Your task to perform on an android device: make emails show in primary in the gmail app Image 0: 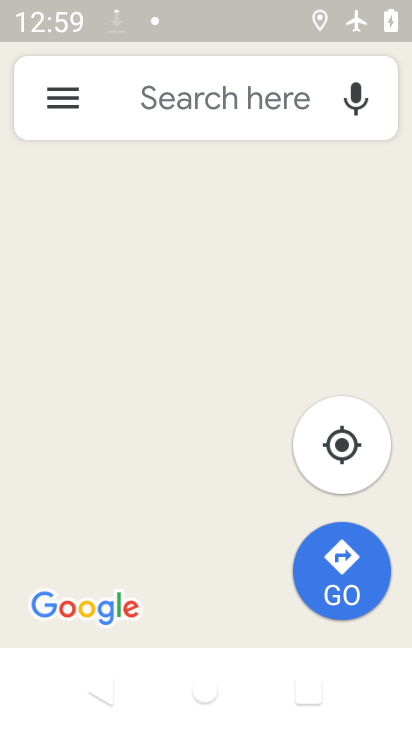
Step 0: press home button
Your task to perform on an android device: make emails show in primary in the gmail app Image 1: 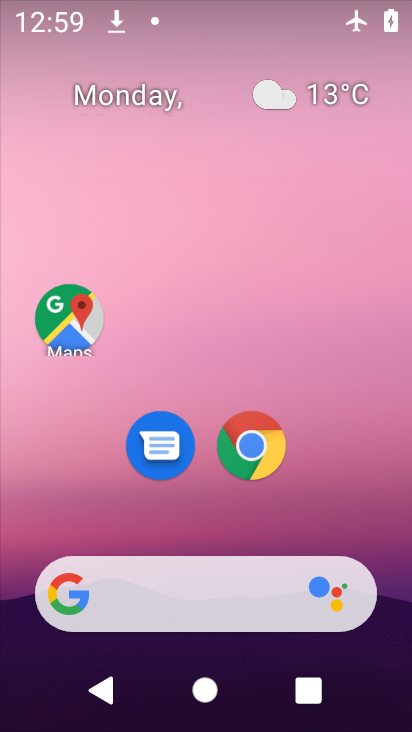
Step 1: drag from (296, 538) to (181, 116)
Your task to perform on an android device: make emails show in primary in the gmail app Image 2: 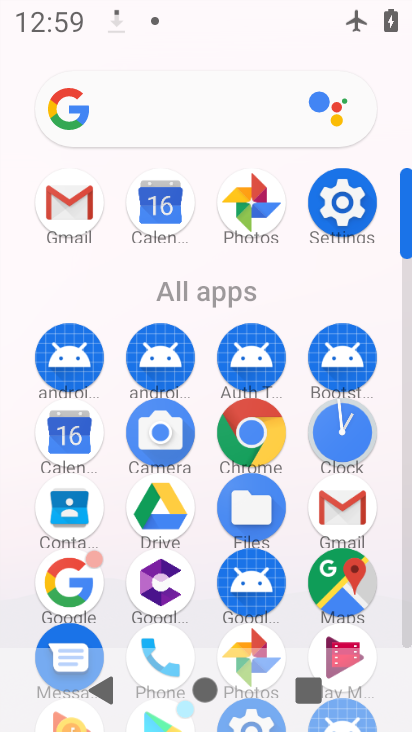
Step 2: click (340, 502)
Your task to perform on an android device: make emails show in primary in the gmail app Image 3: 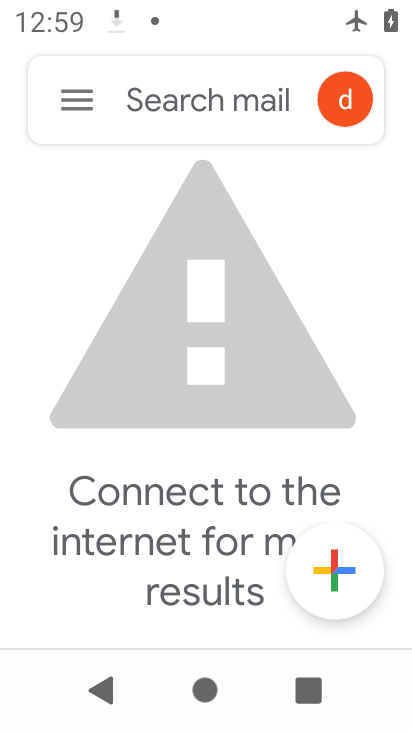
Step 3: click (70, 105)
Your task to perform on an android device: make emails show in primary in the gmail app Image 4: 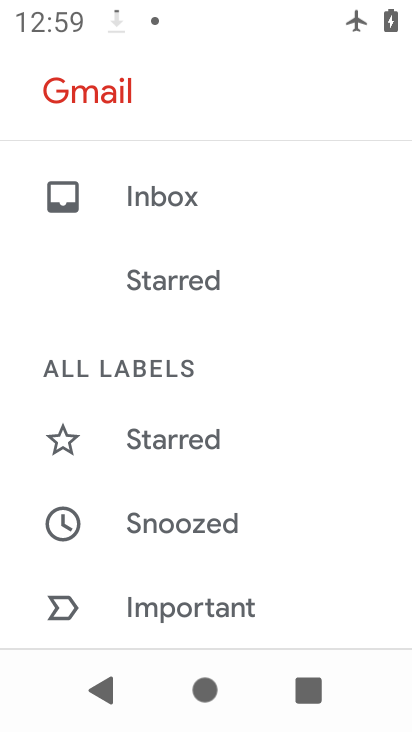
Step 4: drag from (141, 600) to (170, 356)
Your task to perform on an android device: make emails show in primary in the gmail app Image 5: 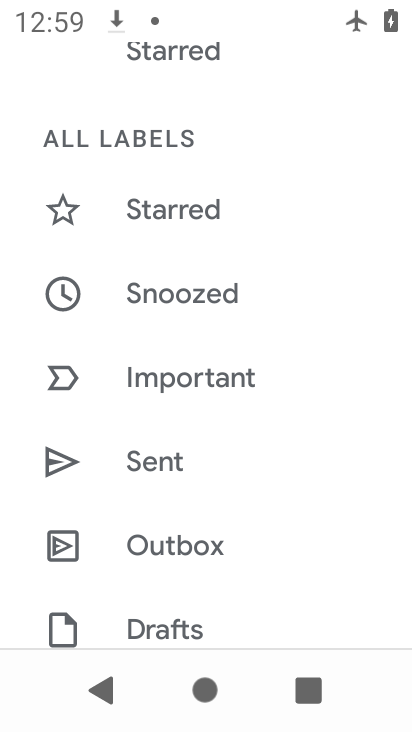
Step 5: drag from (180, 668) to (203, 439)
Your task to perform on an android device: make emails show in primary in the gmail app Image 6: 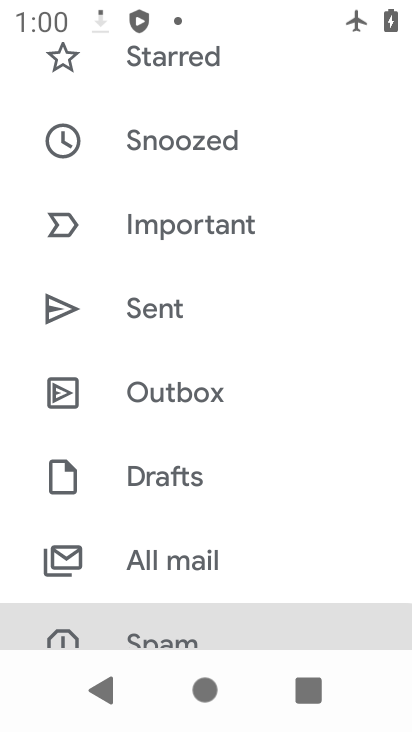
Step 6: drag from (157, 564) to (164, 294)
Your task to perform on an android device: make emails show in primary in the gmail app Image 7: 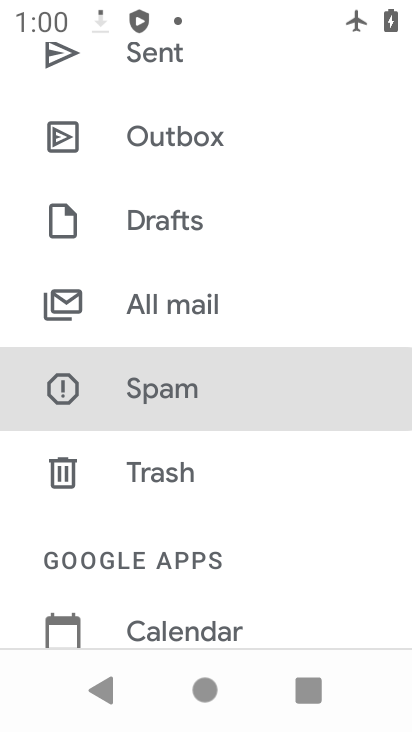
Step 7: click (195, 411)
Your task to perform on an android device: make emails show in primary in the gmail app Image 8: 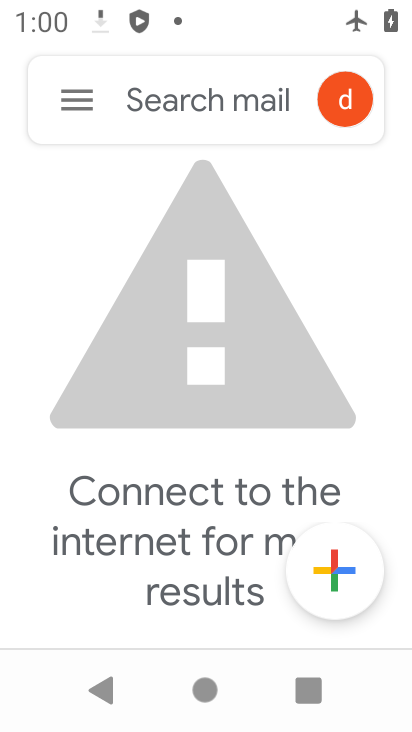
Step 8: click (76, 86)
Your task to perform on an android device: make emails show in primary in the gmail app Image 9: 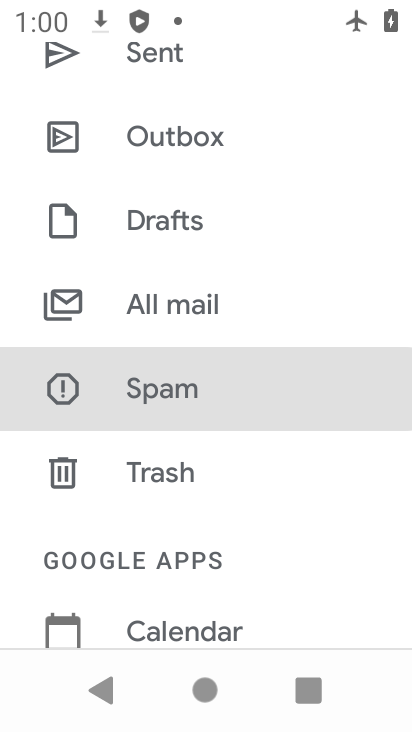
Step 9: drag from (277, 524) to (215, 155)
Your task to perform on an android device: make emails show in primary in the gmail app Image 10: 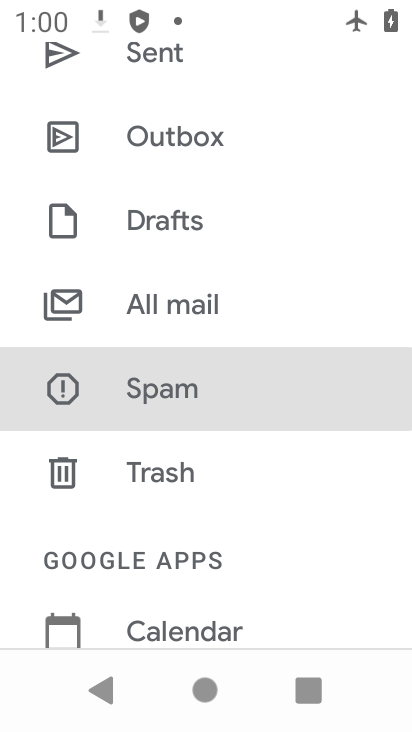
Step 10: drag from (188, 570) to (176, 283)
Your task to perform on an android device: make emails show in primary in the gmail app Image 11: 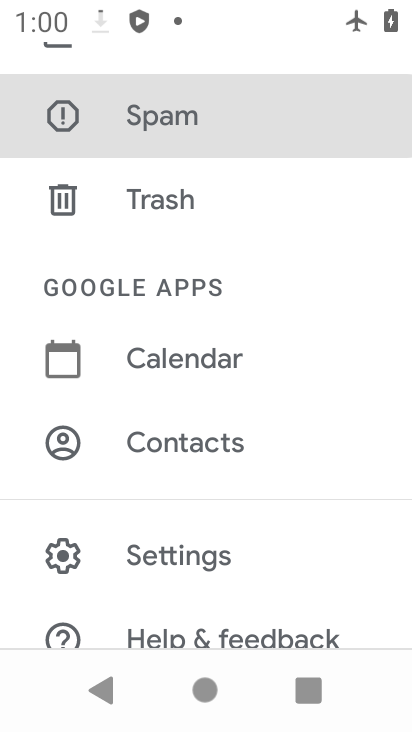
Step 11: click (155, 582)
Your task to perform on an android device: make emails show in primary in the gmail app Image 12: 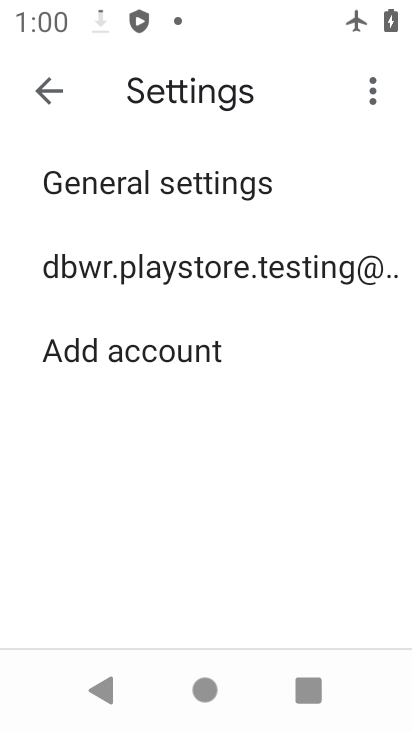
Step 12: click (164, 260)
Your task to perform on an android device: make emails show in primary in the gmail app Image 13: 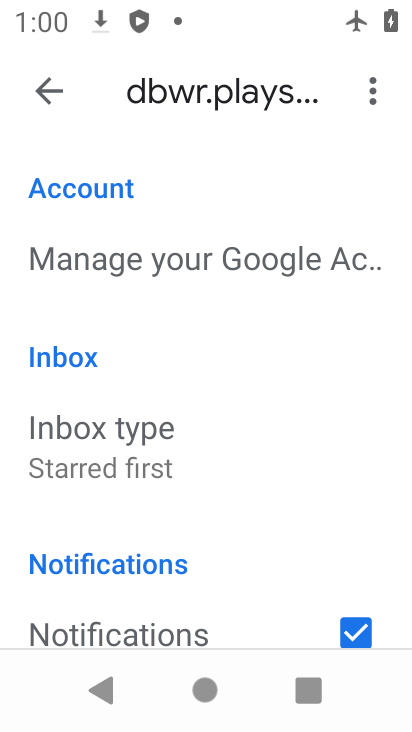
Step 13: task complete